Your task to perform on an android device: add a contact in the contacts app Image 0: 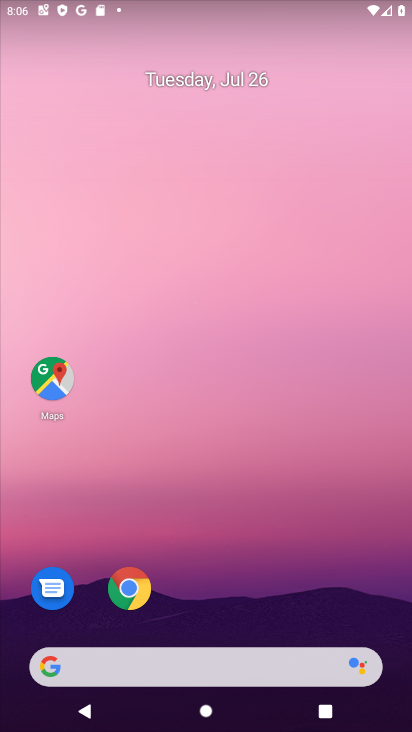
Step 0: press home button
Your task to perform on an android device: add a contact in the contacts app Image 1: 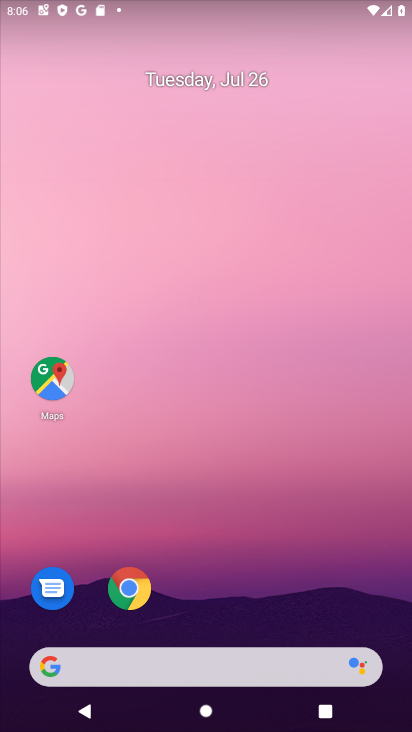
Step 1: drag from (293, 619) to (233, 112)
Your task to perform on an android device: add a contact in the contacts app Image 2: 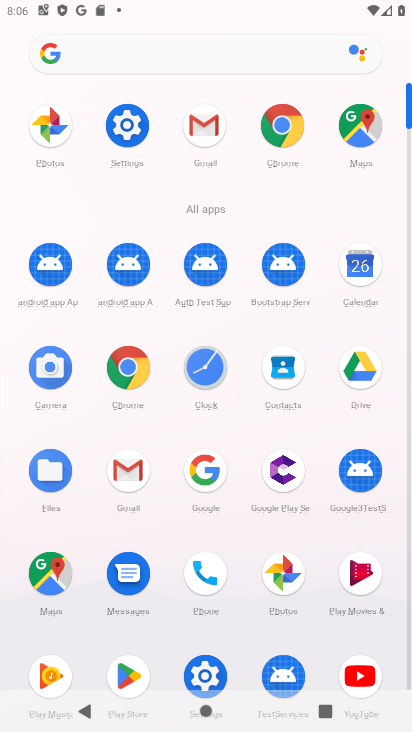
Step 2: click (284, 363)
Your task to perform on an android device: add a contact in the contacts app Image 3: 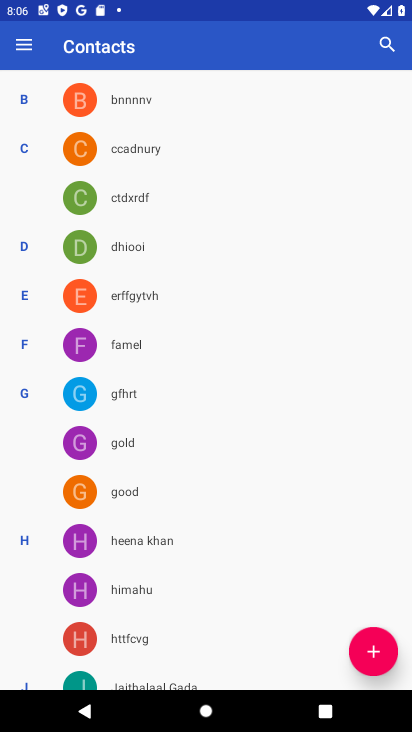
Step 3: click (379, 656)
Your task to perform on an android device: add a contact in the contacts app Image 4: 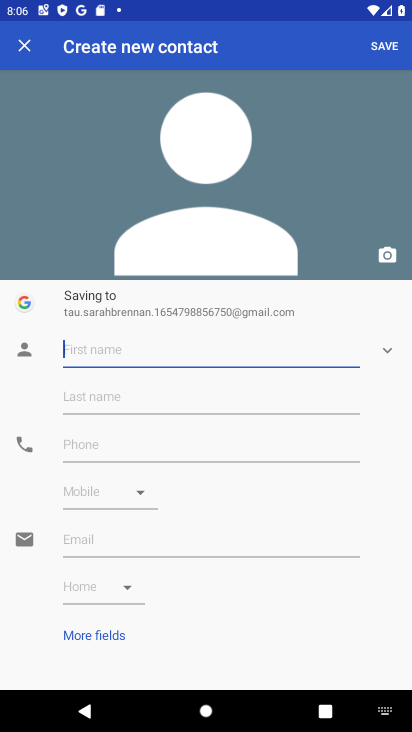
Step 4: type "dseeeffa"
Your task to perform on an android device: add a contact in the contacts app Image 5: 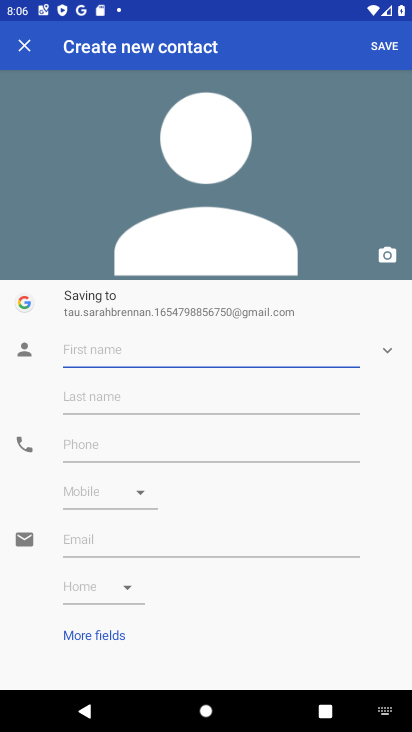
Step 5: click (132, 358)
Your task to perform on an android device: add a contact in the contacts app Image 6: 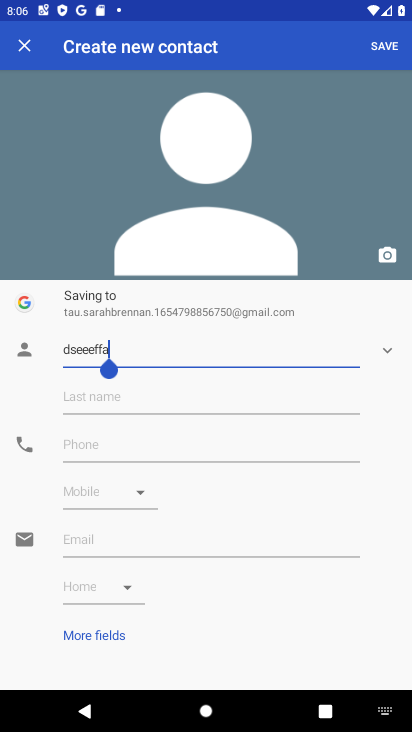
Step 6: click (125, 446)
Your task to perform on an android device: add a contact in the contacts app Image 7: 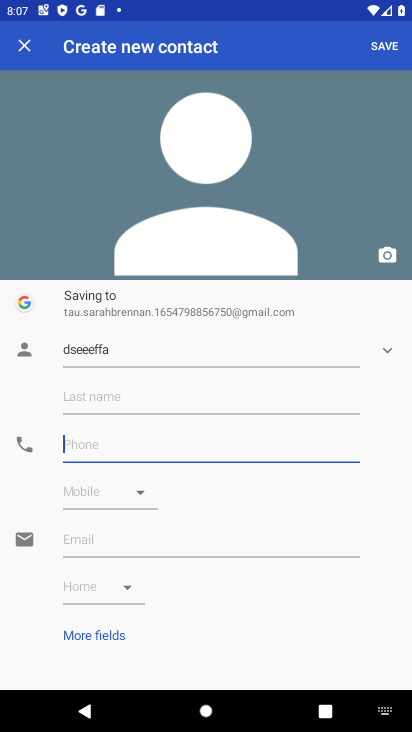
Step 7: type "2332455522222"
Your task to perform on an android device: add a contact in the contacts app Image 8: 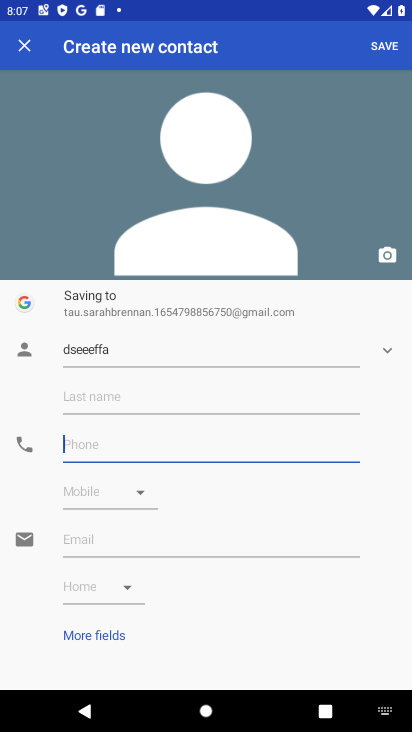
Step 8: click (102, 445)
Your task to perform on an android device: add a contact in the contacts app Image 9: 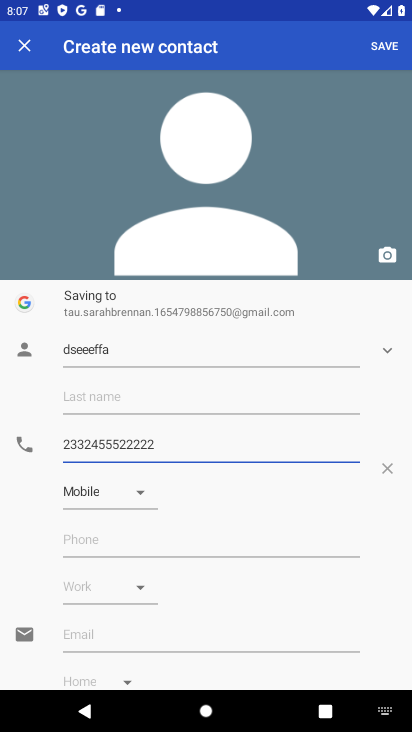
Step 9: click (392, 40)
Your task to perform on an android device: add a contact in the contacts app Image 10: 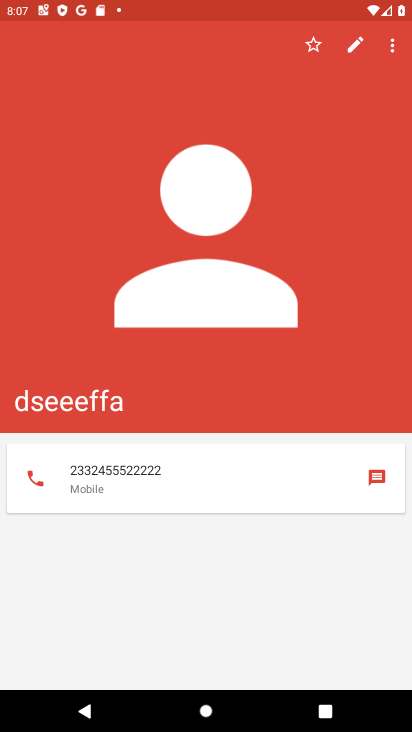
Step 10: task complete